Your task to perform on an android device: turn off data saver in the chrome app Image 0: 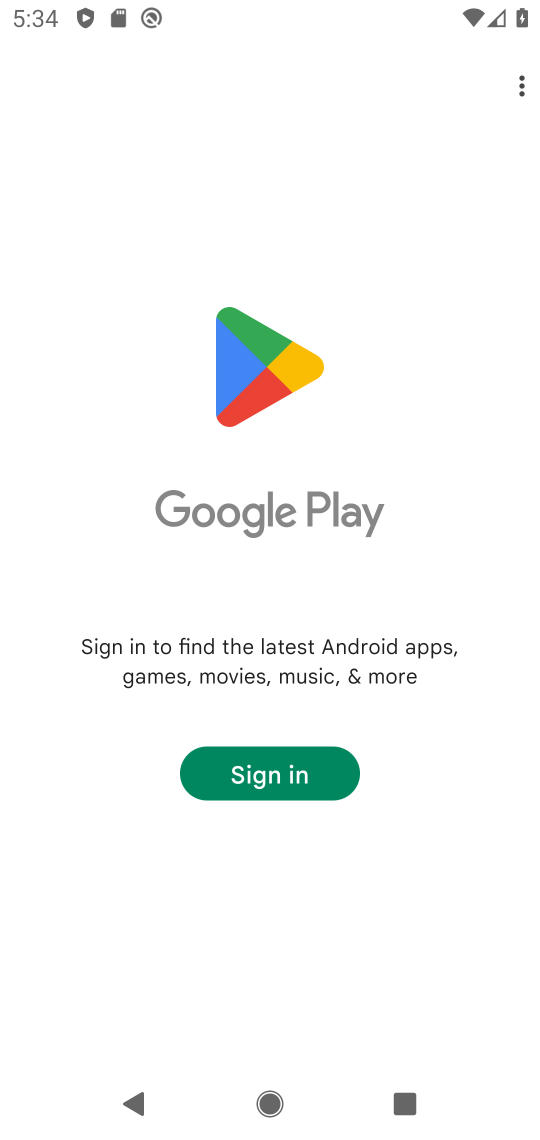
Step 0: press home button
Your task to perform on an android device: turn off data saver in the chrome app Image 1: 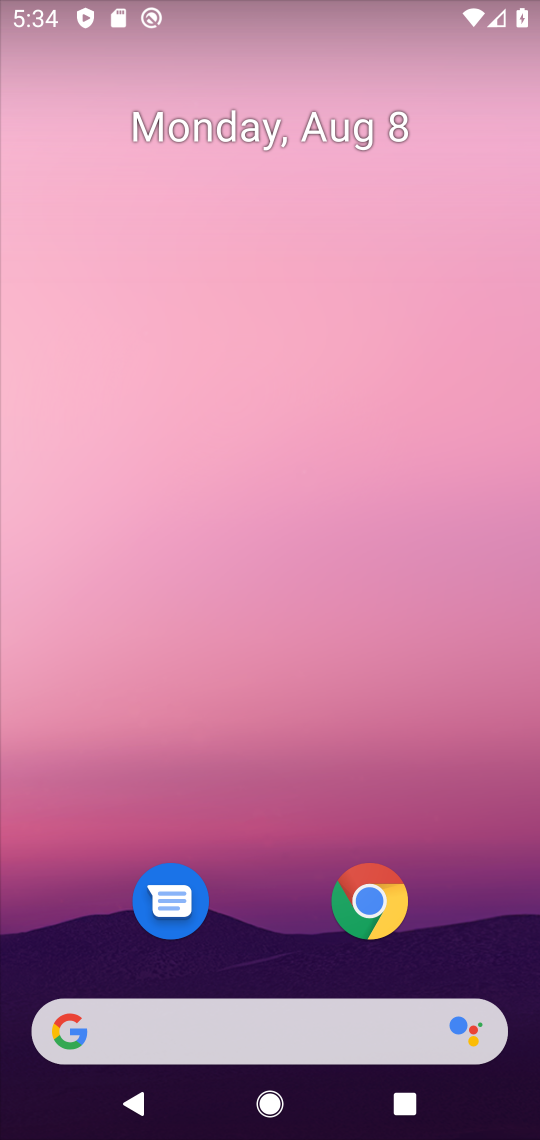
Step 1: click (381, 910)
Your task to perform on an android device: turn off data saver in the chrome app Image 2: 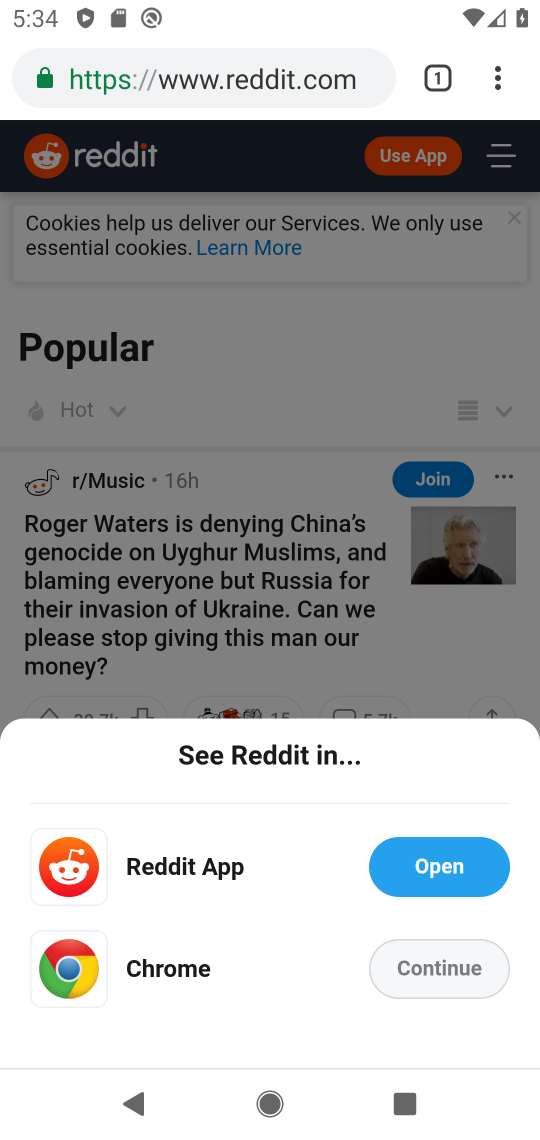
Step 2: click (515, 71)
Your task to perform on an android device: turn off data saver in the chrome app Image 3: 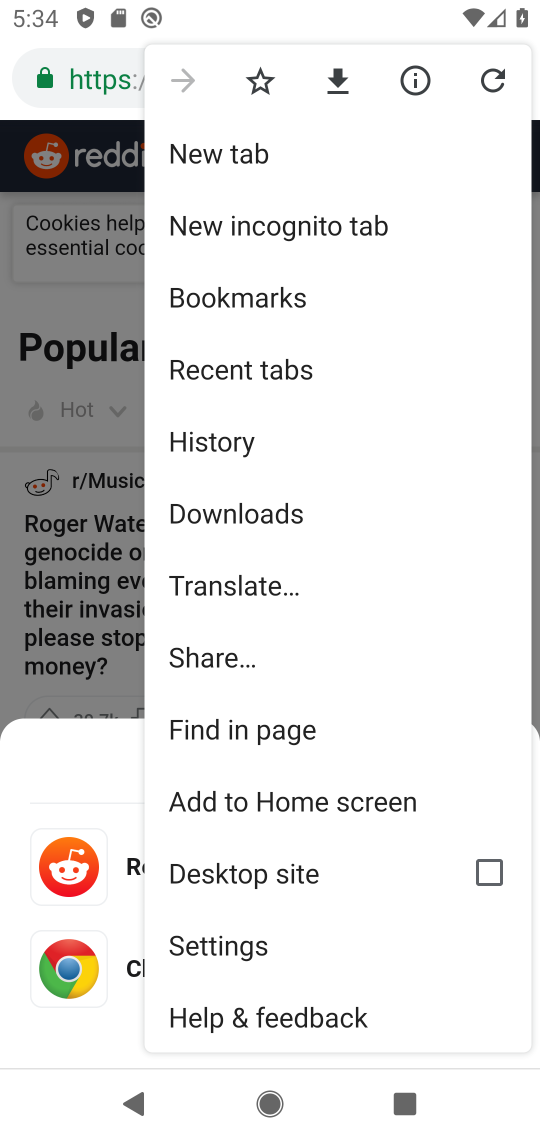
Step 3: click (311, 928)
Your task to perform on an android device: turn off data saver in the chrome app Image 4: 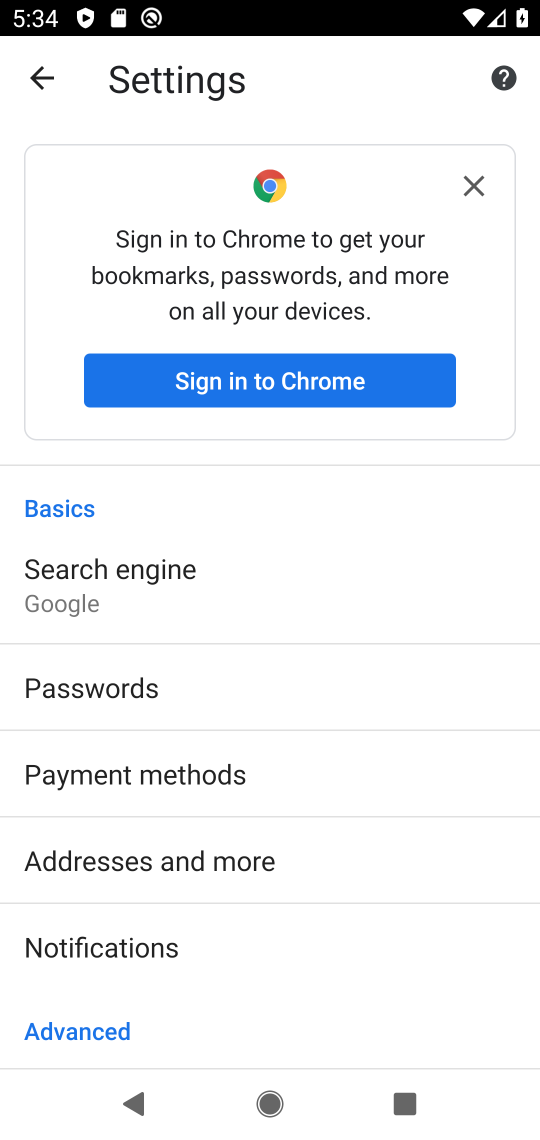
Step 4: drag from (317, 986) to (294, 147)
Your task to perform on an android device: turn off data saver in the chrome app Image 5: 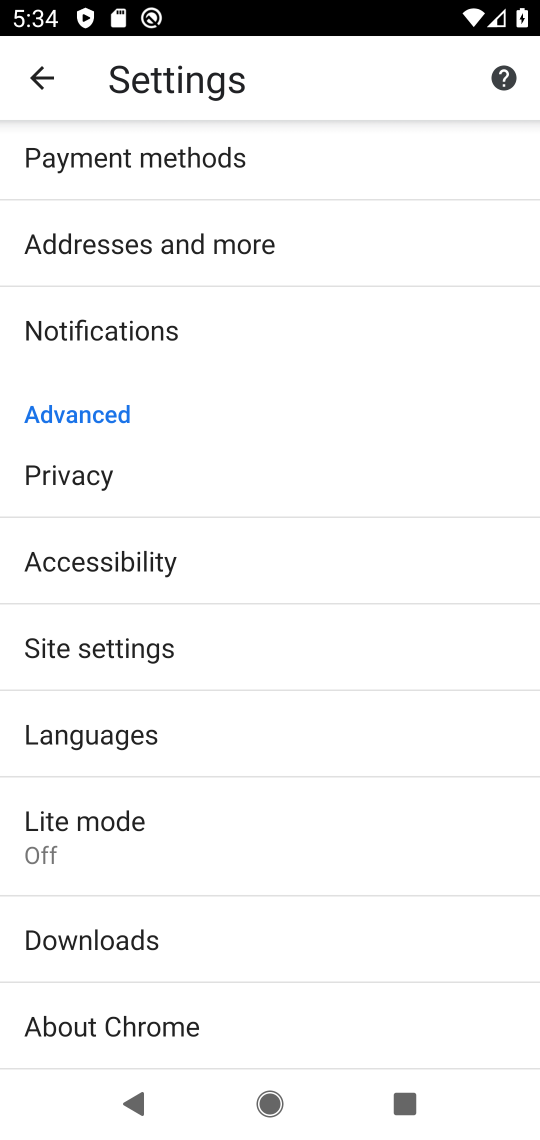
Step 5: click (193, 807)
Your task to perform on an android device: turn off data saver in the chrome app Image 6: 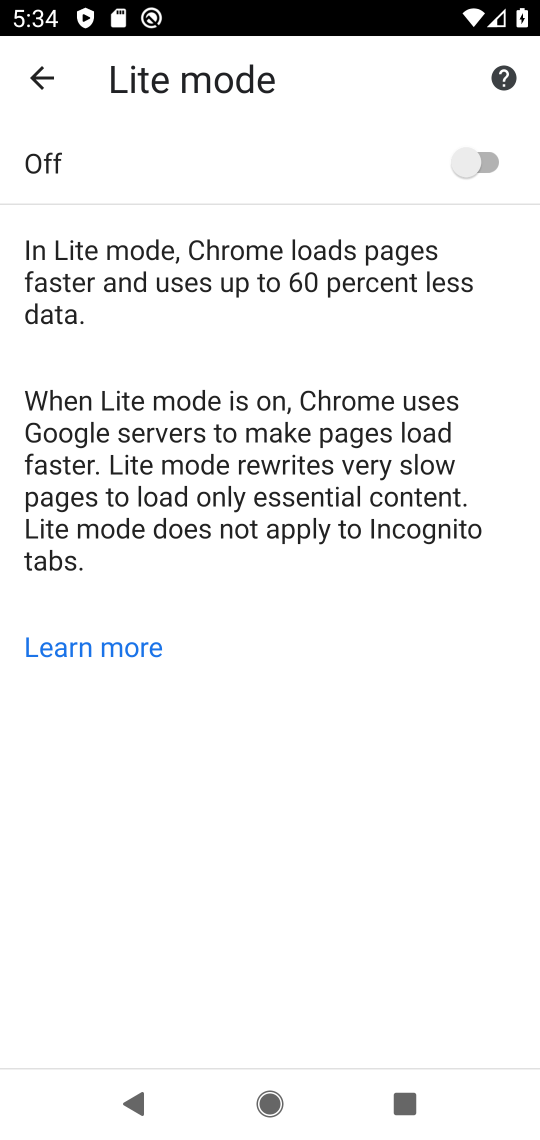
Step 6: task complete